Your task to perform on an android device: Open Reddit.com Image 0: 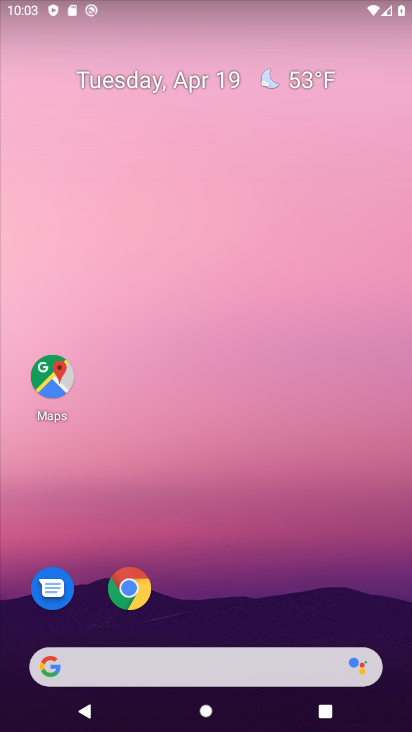
Step 0: click (125, 613)
Your task to perform on an android device: Open Reddit.com Image 1: 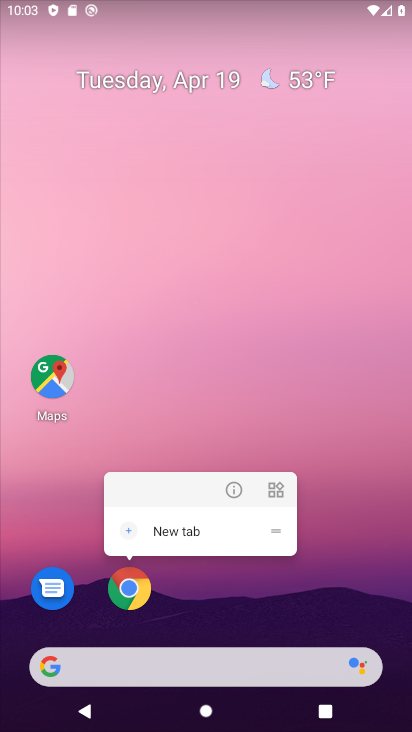
Step 1: click (132, 606)
Your task to perform on an android device: Open Reddit.com Image 2: 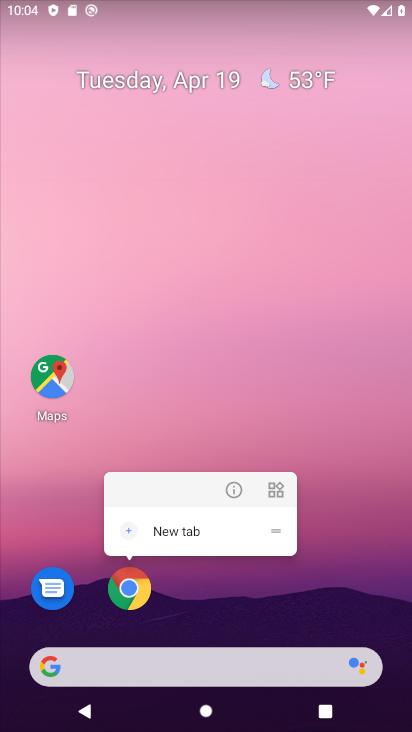
Step 2: click (132, 606)
Your task to perform on an android device: Open Reddit.com Image 3: 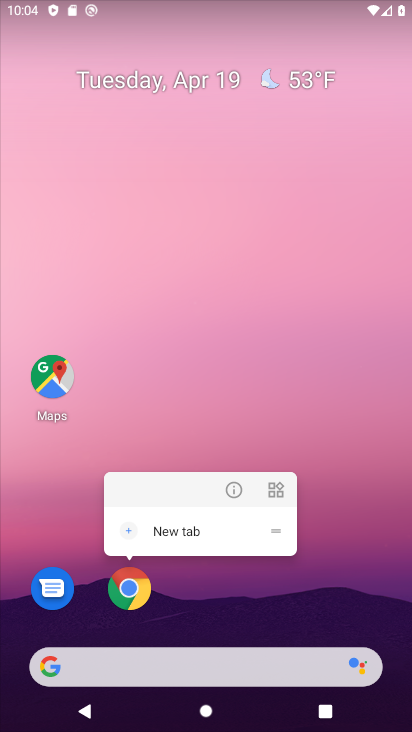
Step 3: click (126, 605)
Your task to perform on an android device: Open Reddit.com Image 4: 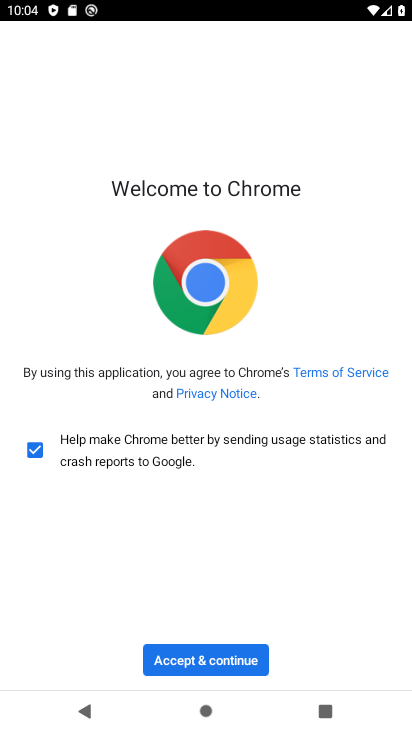
Step 4: click (186, 657)
Your task to perform on an android device: Open Reddit.com Image 5: 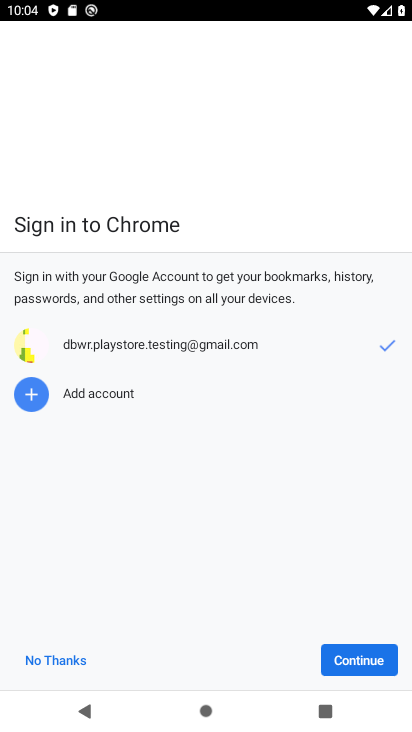
Step 5: click (370, 663)
Your task to perform on an android device: Open Reddit.com Image 6: 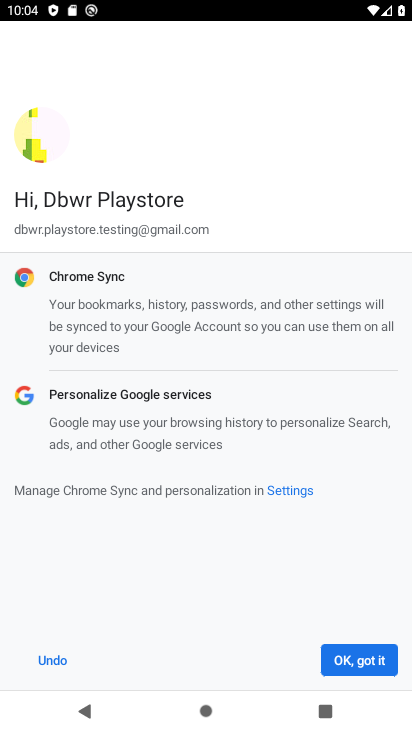
Step 6: click (370, 663)
Your task to perform on an android device: Open Reddit.com Image 7: 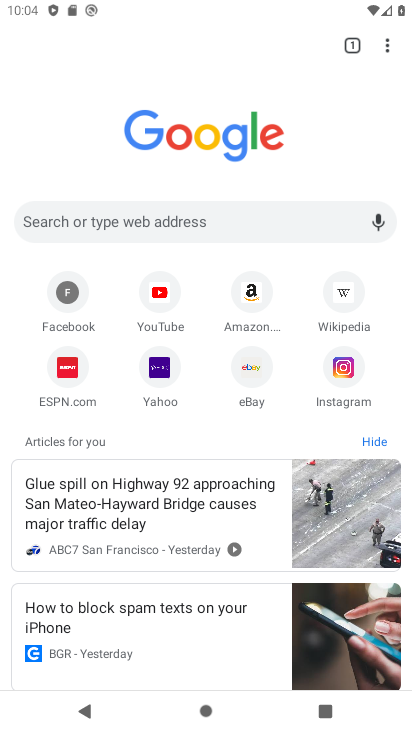
Step 7: click (220, 214)
Your task to perform on an android device: Open Reddit.com Image 8: 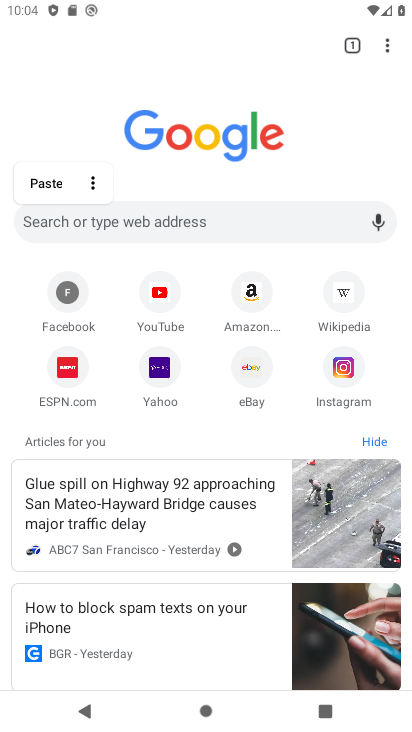
Step 8: type "reddit.com"
Your task to perform on an android device: Open Reddit.com Image 9: 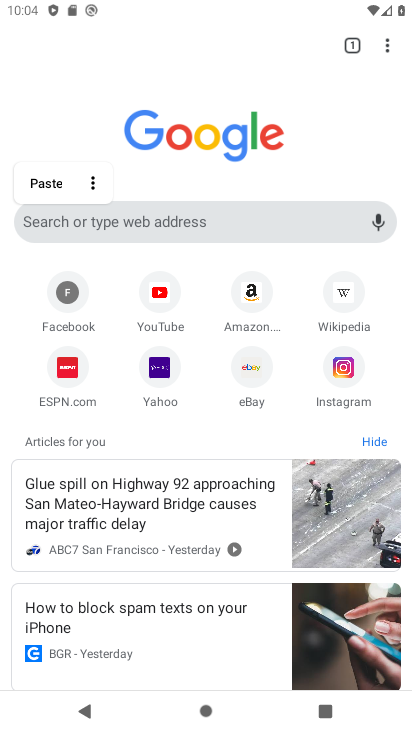
Step 9: click (168, 228)
Your task to perform on an android device: Open Reddit.com Image 10: 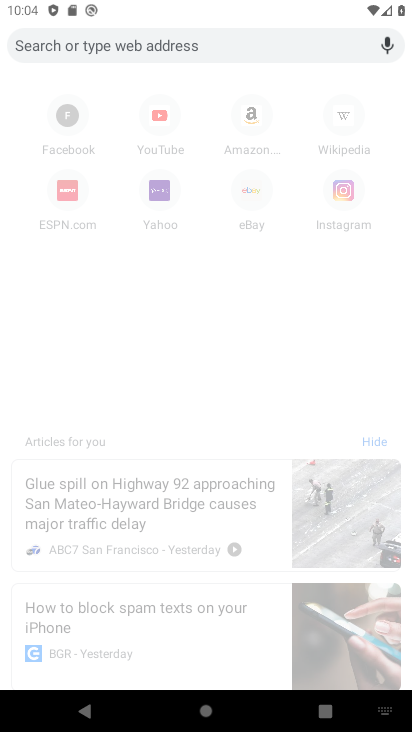
Step 10: type "reddit.com"
Your task to perform on an android device: Open Reddit.com Image 11: 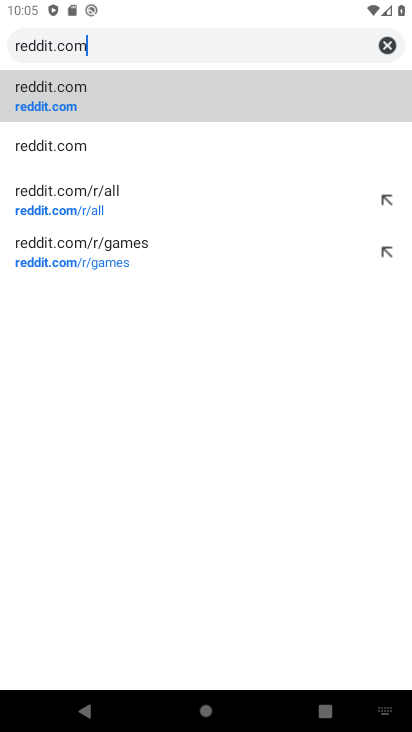
Step 11: click (262, 104)
Your task to perform on an android device: Open Reddit.com Image 12: 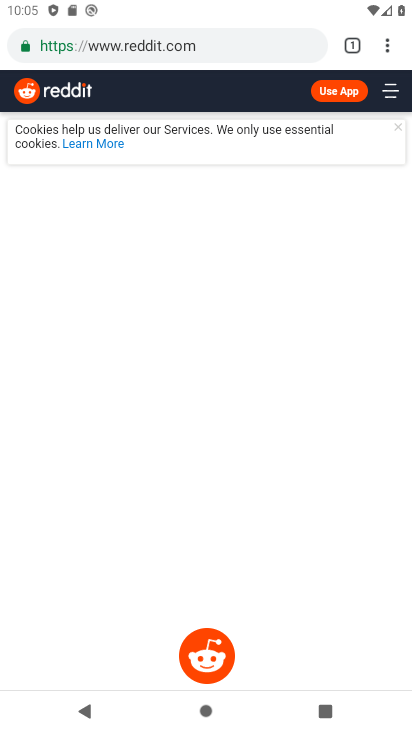
Step 12: task complete